Your task to perform on an android device: Open network settings Image 0: 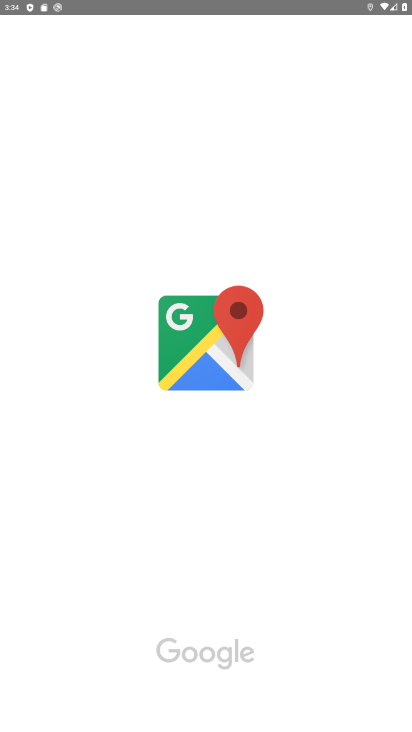
Step 0: press home button
Your task to perform on an android device: Open network settings Image 1: 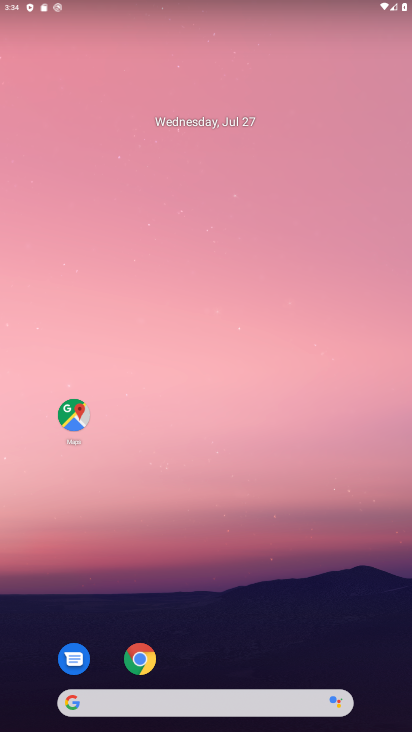
Step 1: drag from (231, 651) to (191, 150)
Your task to perform on an android device: Open network settings Image 2: 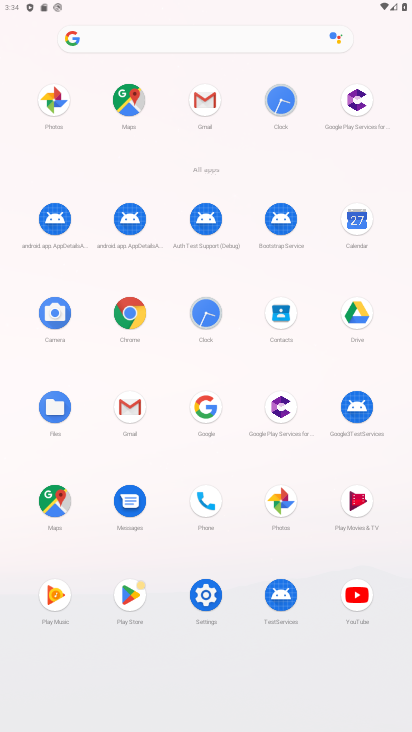
Step 2: click (203, 590)
Your task to perform on an android device: Open network settings Image 3: 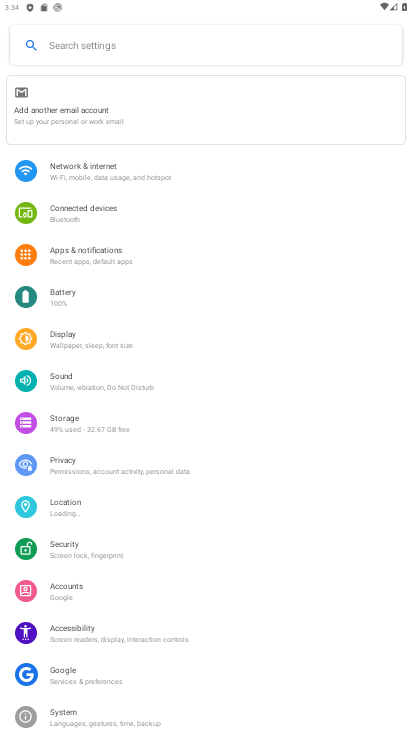
Step 3: click (171, 172)
Your task to perform on an android device: Open network settings Image 4: 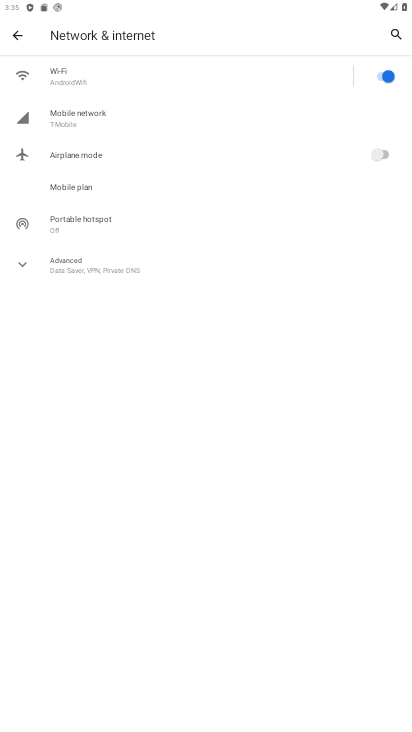
Step 4: click (99, 126)
Your task to perform on an android device: Open network settings Image 5: 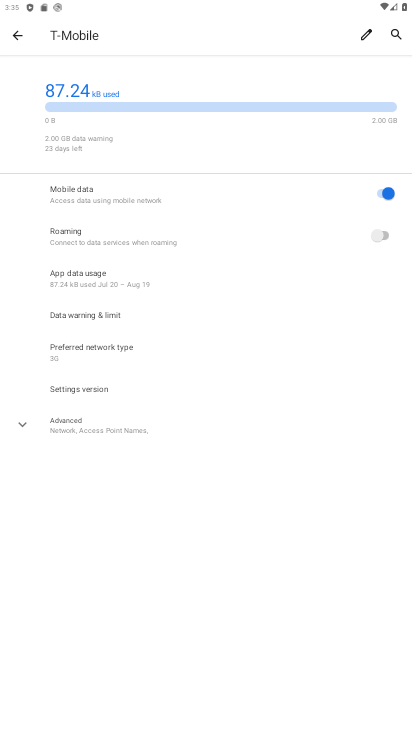
Step 5: task complete